Your task to perform on an android device: turn off picture-in-picture Image 0: 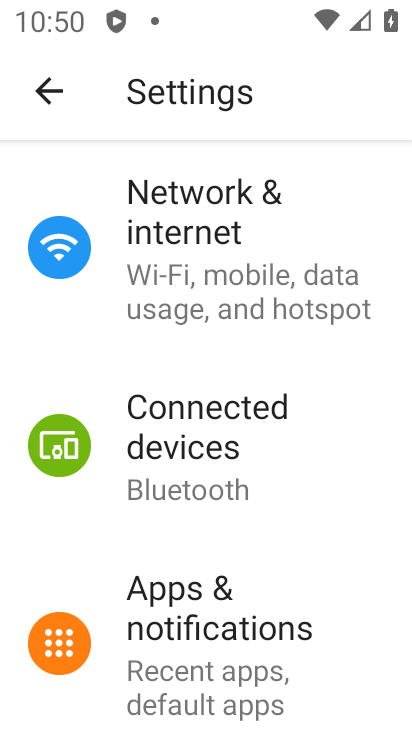
Step 0: press home button
Your task to perform on an android device: turn off picture-in-picture Image 1: 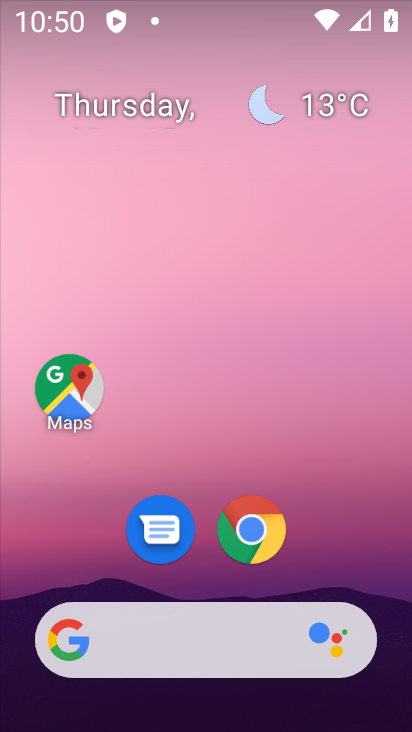
Step 1: click (239, 540)
Your task to perform on an android device: turn off picture-in-picture Image 2: 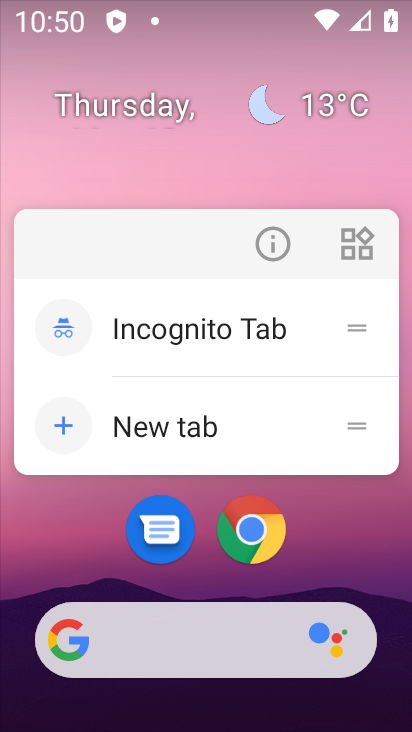
Step 2: click (256, 251)
Your task to perform on an android device: turn off picture-in-picture Image 3: 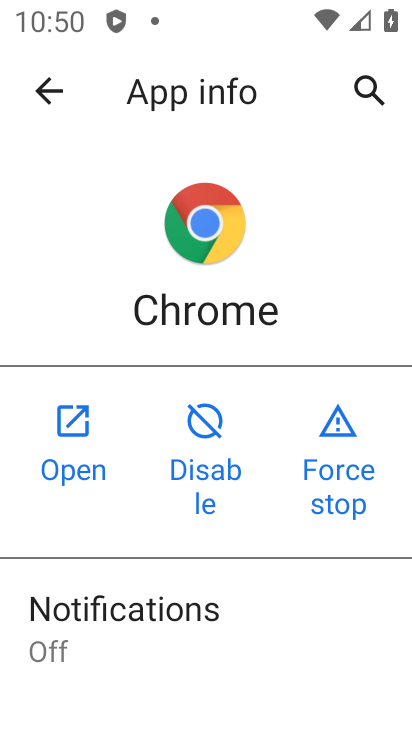
Step 3: drag from (201, 516) to (212, 215)
Your task to perform on an android device: turn off picture-in-picture Image 4: 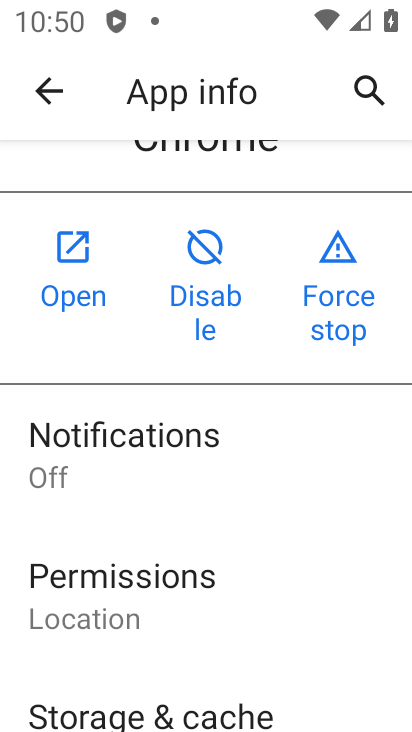
Step 4: drag from (201, 369) to (229, 170)
Your task to perform on an android device: turn off picture-in-picture Image 5: 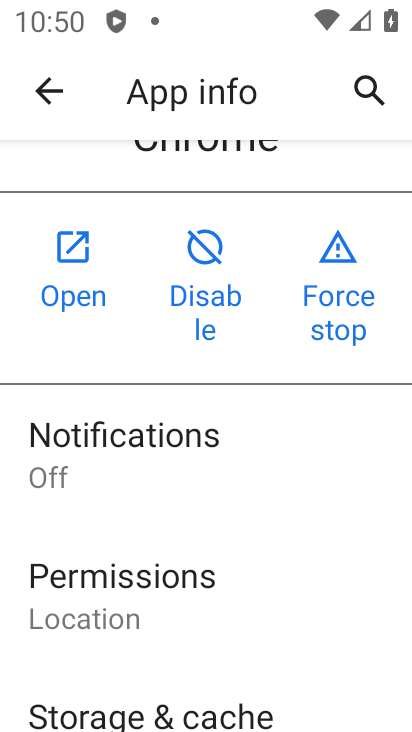
Step 5: drag from (271, 273) to (295, 200)
Your task to perform on an android device: turn off picture-in-picture Image 6: 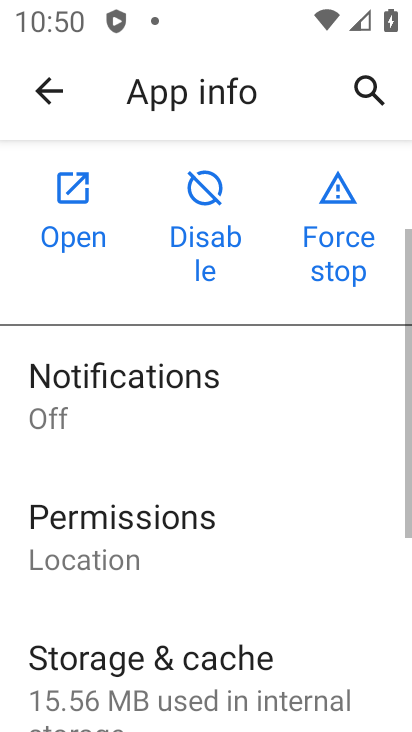
Step 6: drag from (270, 546) to (275, 204)
Your task to perform on an android device: turn off picture-in-picture Image 7: 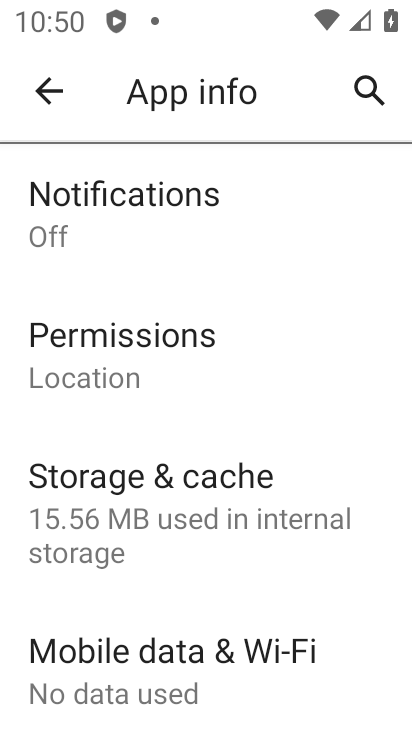
Step 7: drag from (187, 294) to (199, 249)
Your task to perform on an android device: turn off picture-in-picture Image 8: 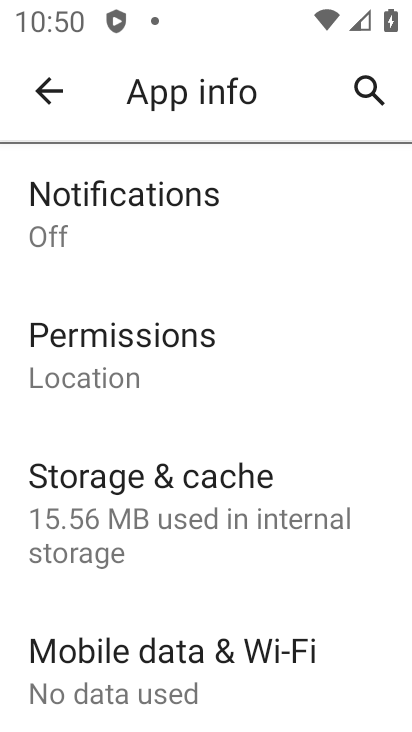
Step 8: drag from (180, 539) to (204, 294)
Your task to perform on an android device: turn off picture-in-picture Image 9: 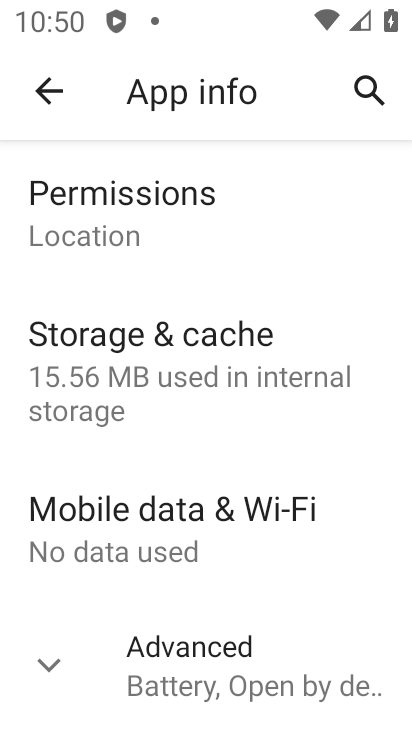
Step 9: drag from (153, 516) to (182, 352)
Your task to perform on an android device: turn off picture-in-picture Image 10: 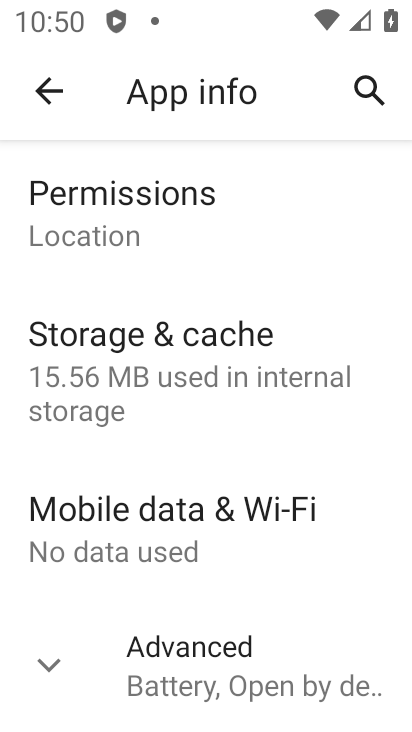
Step 10: click (180, 681)
Your task to perform on an android device: turn off picture-in-picture Image 11: 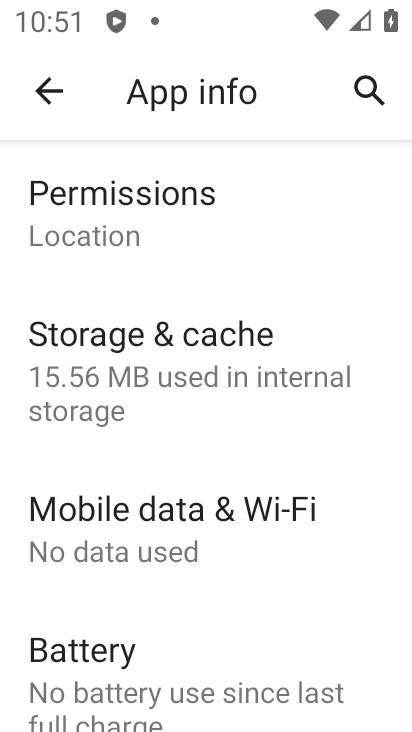
Step 11: drag from (173, 606) to (207, 235)
Your task to perform on an android device: turn off picture-in-picture Image 12: 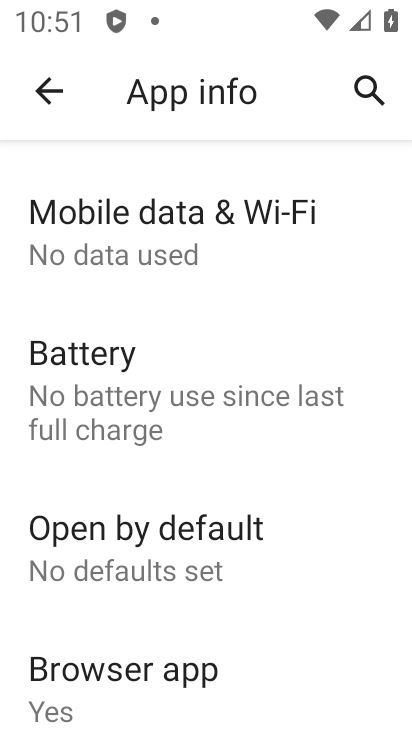
Step 12: drag from (185, 625) to (182, 140)
Your task to perform on an android device: turn off picture-in-picture Image 13: 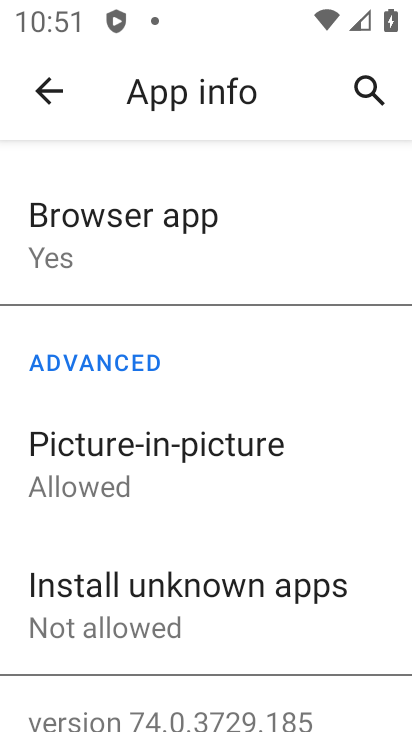
Step 13: click (211, 452)
Your task to perform on an android device: turn off picture-in-picture Image 14: 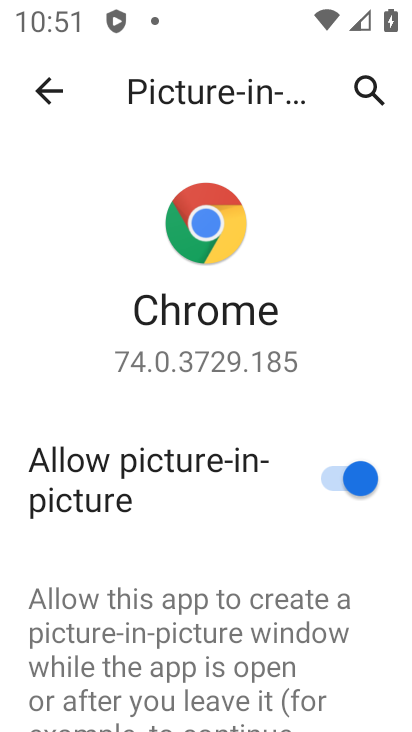
Step 14: click (342, 466)
Your task to perform on an android device: turn off picture-in-picture Image 15: 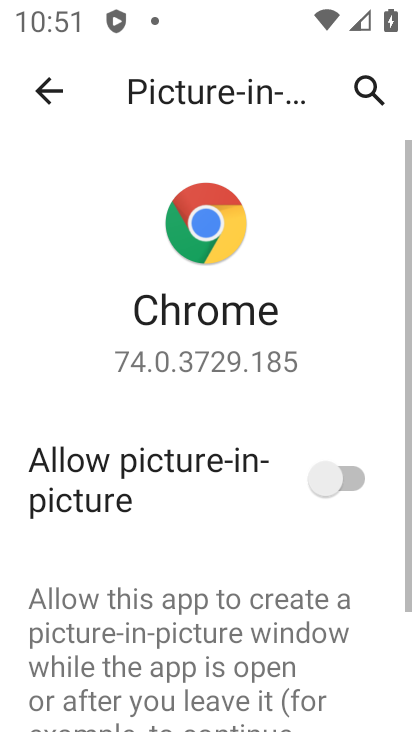
Step 15: task complete